Your task to perform on an android device: Open the web browser Image 0: 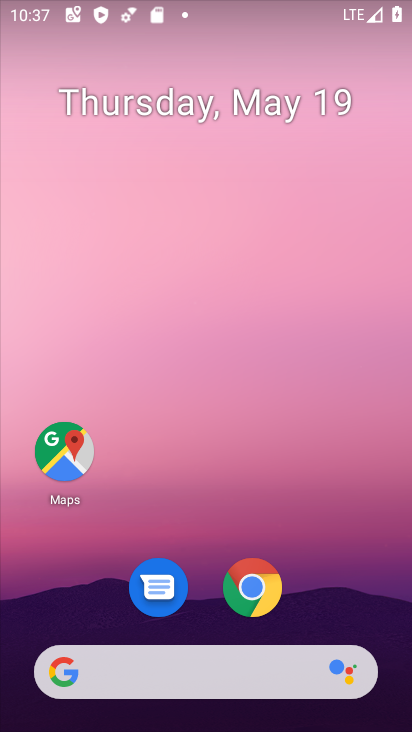
Step 0: click (185, 670)
Your task to perform on an android device: Open the web browser Image 1: 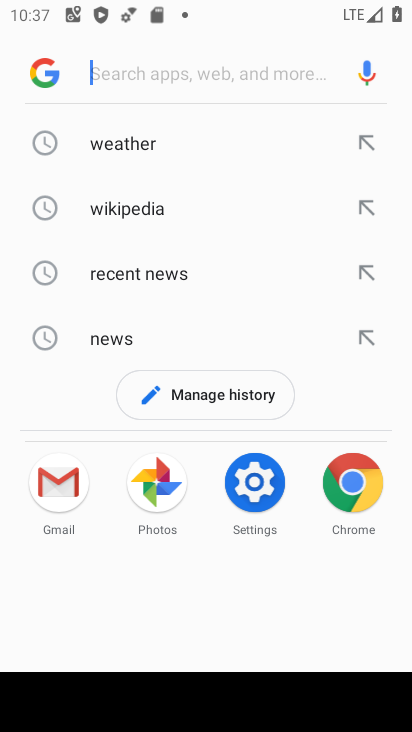
Step 1: task complete